Your task to perform on an android device: snooze an email in the gmail app Image 0: 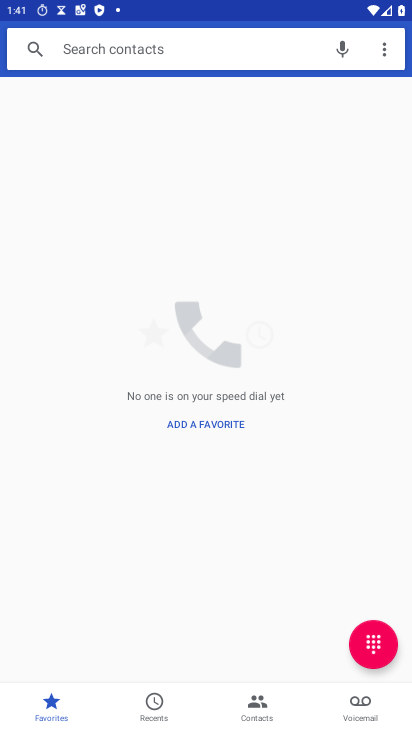
Step 0: press home button
Your task to perform on an android device: snooze an email in the gmail app Image 1: 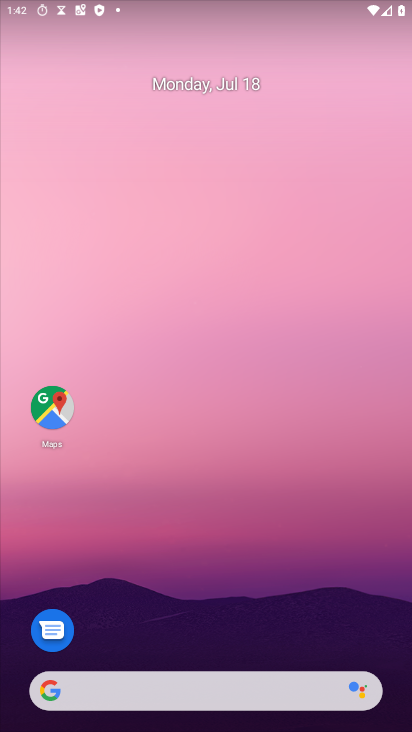
Step 1: drag from (142, 683) to (180, 7)
Your task to perform on an android device: snooze an email in the gmail app Image 2: 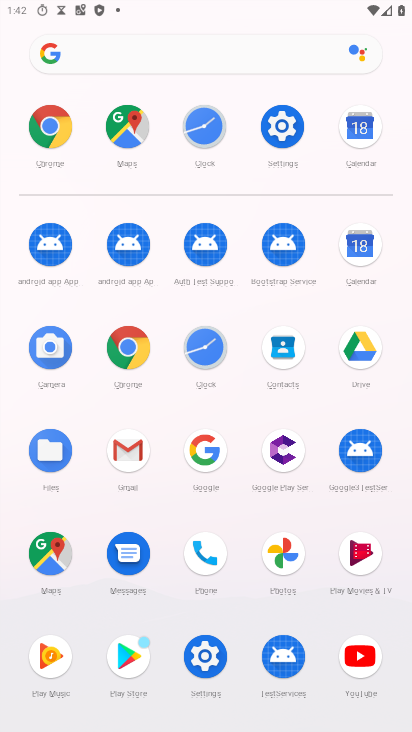
Step 2: click (130, 447)
Your task to perform on an android device: snooze an email in the gmail app Image 3: 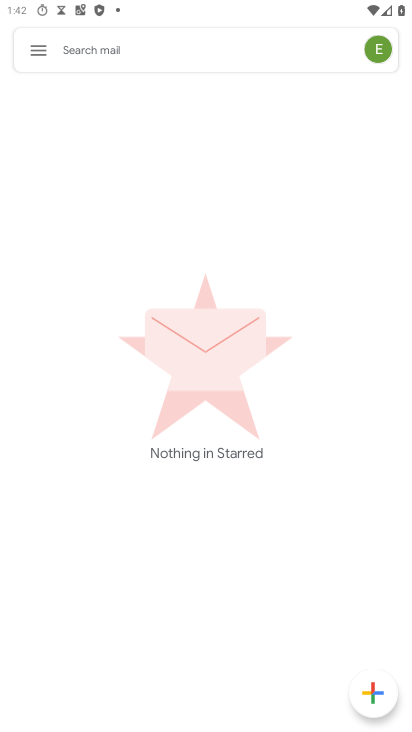
Step 3: click (42, 43)
Your task to perform on an android device: snooze an email in the gmail app Image 4: 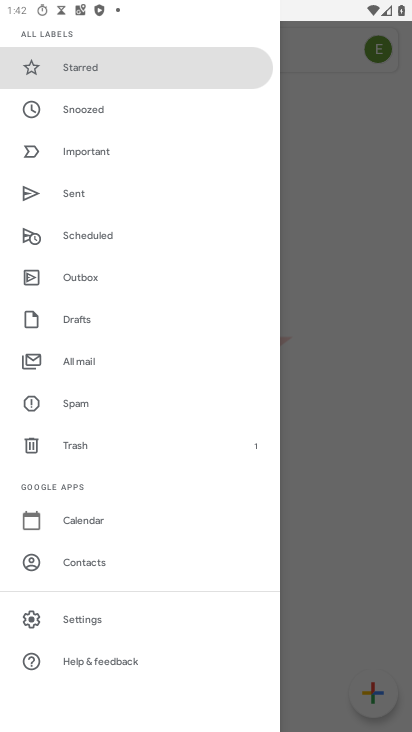
Step 4: click (109, 115)
Your task to perform on an android device: snooze an email in the gmail app Image 5: 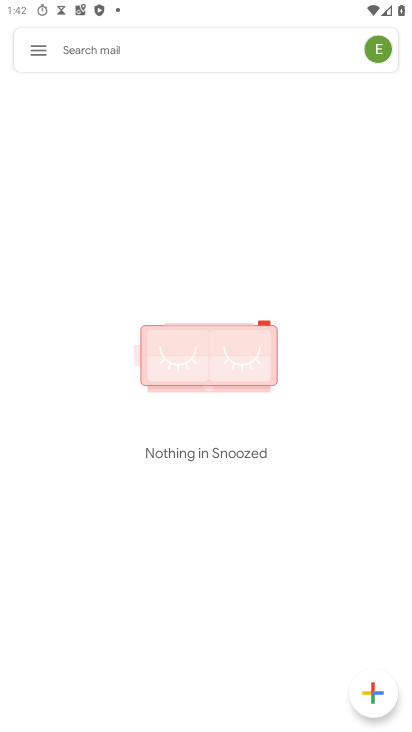
Step 5: task complete